Your task to perform on an android device: open app "DoorDash - Food Delivery" Image 0: 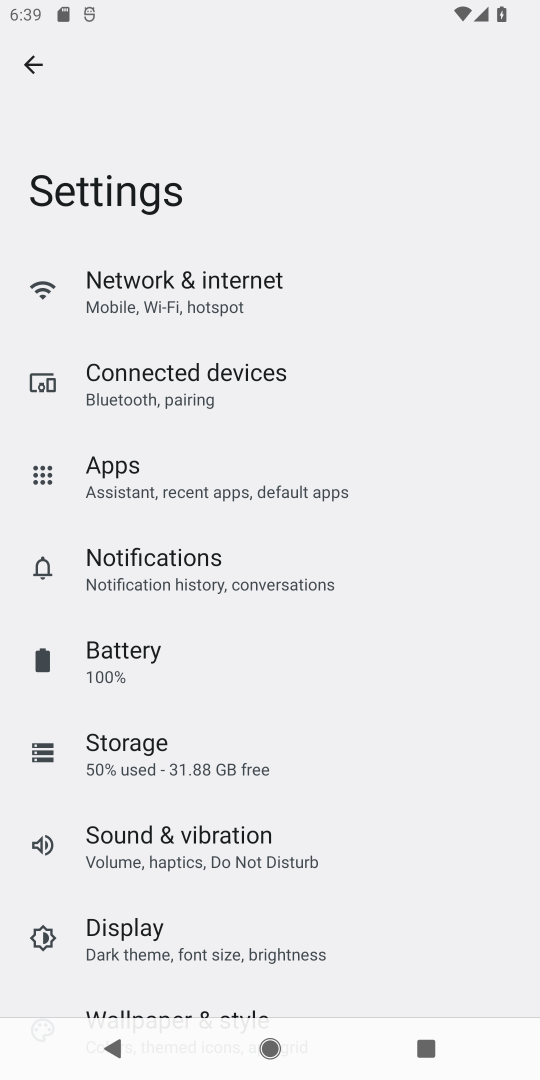
Step 0: press home button
Your task to perform on an android device: open app "DoorDash - Food Delivery" Image 1: 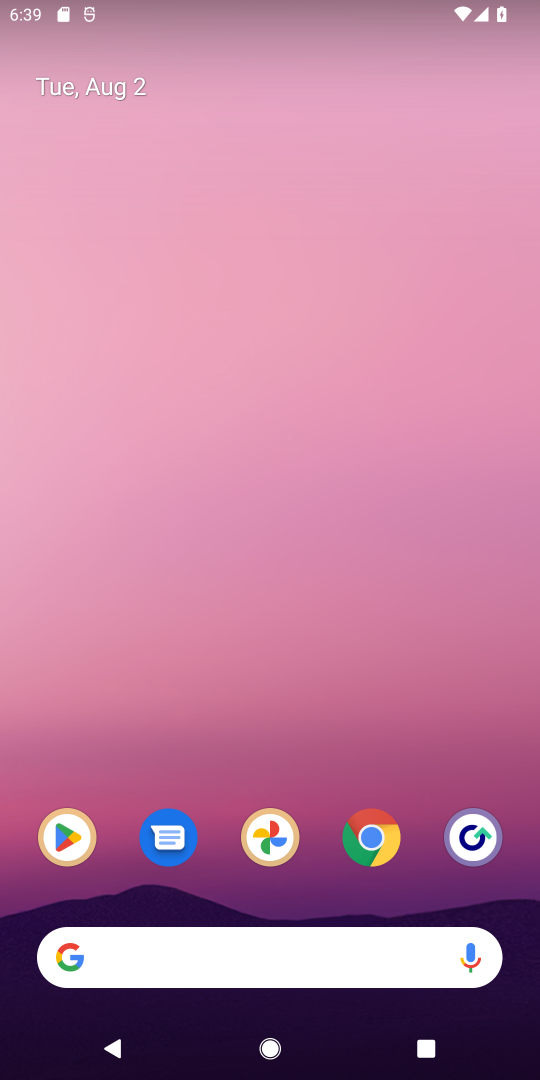
Step 1: click (57, 849)
Your task to perform on an android device: open app "DoorDash - Food Delivery" Image 2: 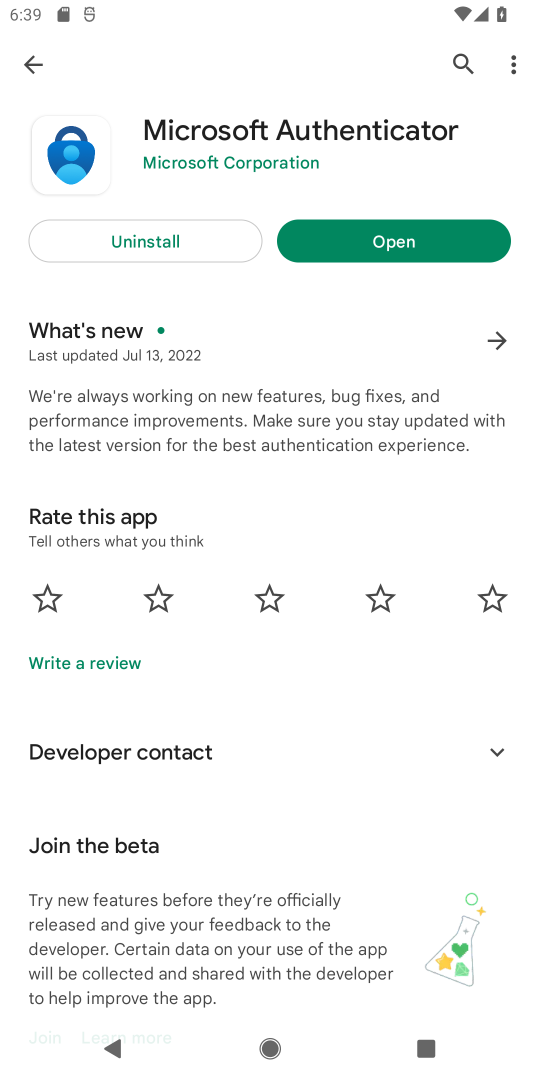
Step 2: click (477, 58)
Your task to perform on an android device: open app "DoorDash - Food Delivery" Image 3: 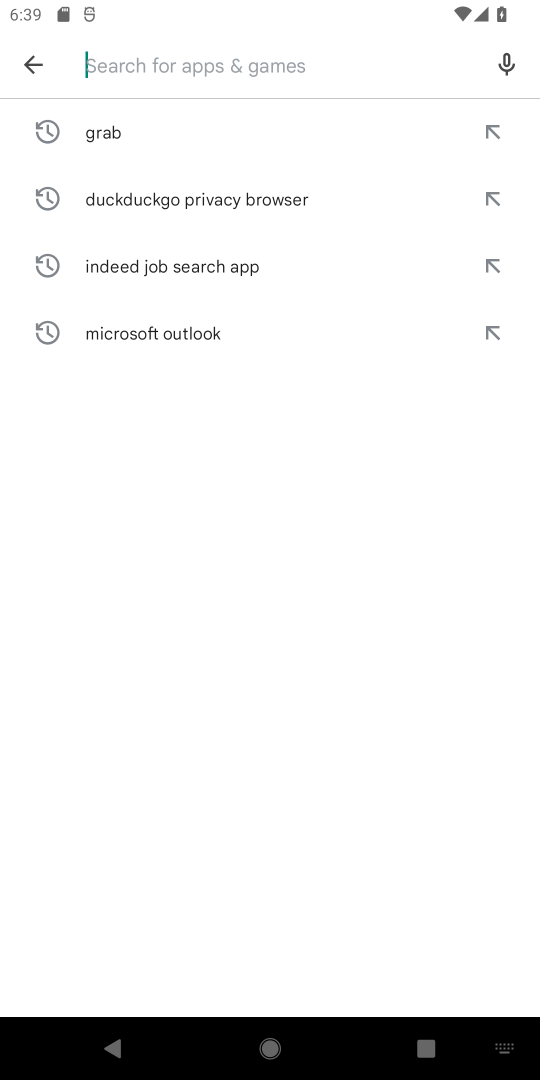
Step 3: type "DoorDash - Food Delivery"
Your task to perform on an android device: open app "DoorDash - Food Delivery" Image 4: 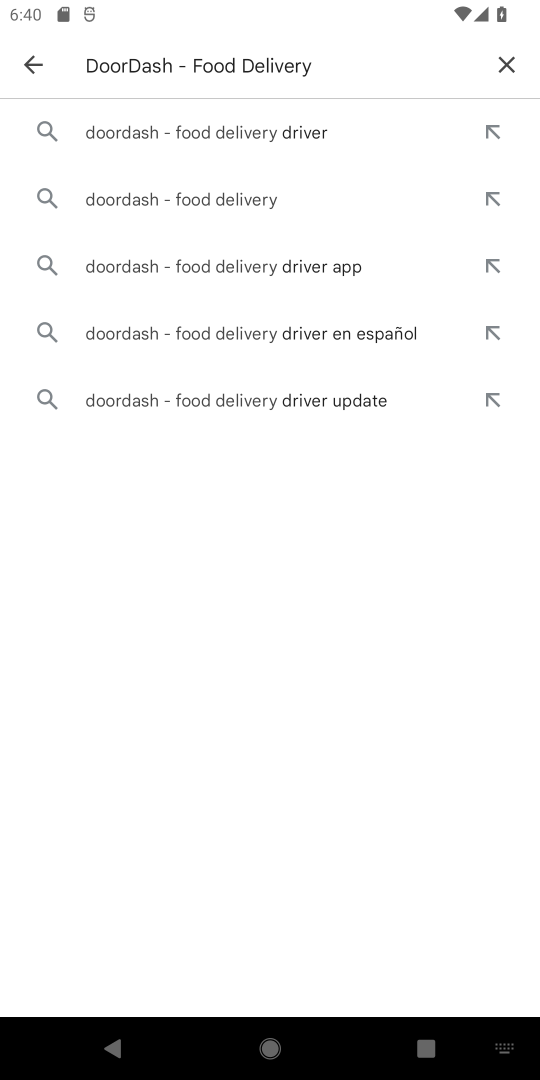
Step 4: click (204, 140)
Your task to perform on an android device: open app "DoorDash - Food Delivery" Image 5: 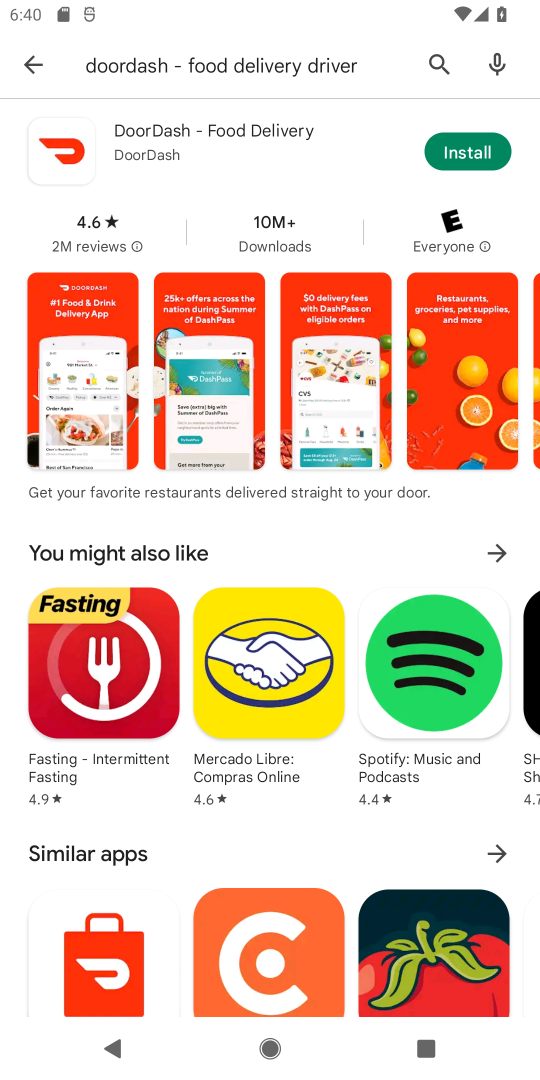
Step 5: task complete